Your task to perform on an android device: open sync settings in chrome Image 0: 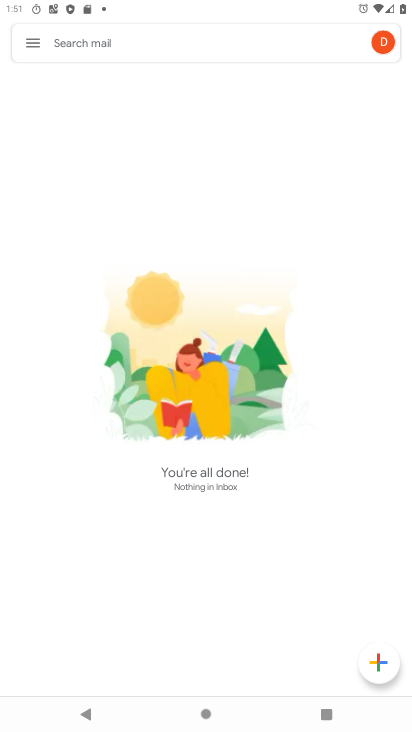
Step 0: press home button
Your task to perform on an android device: open sync settings in chrome Image 1: 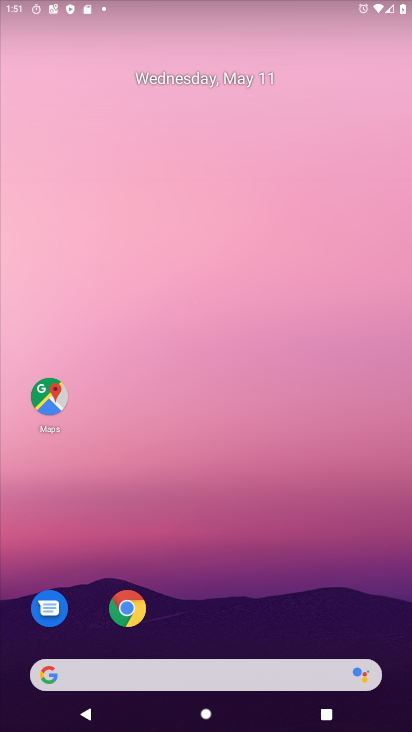
Step 1: drag from (192, 605) to (166, 129)
Your task to perform on an android device: open sync settings in chrome Image 2: 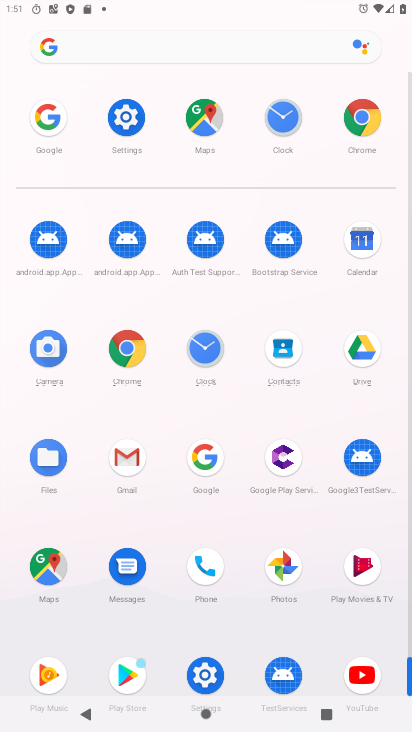
Step 2: click (357, 133)
Your task to perform on an android device: open sync settings in chrome Image 3: 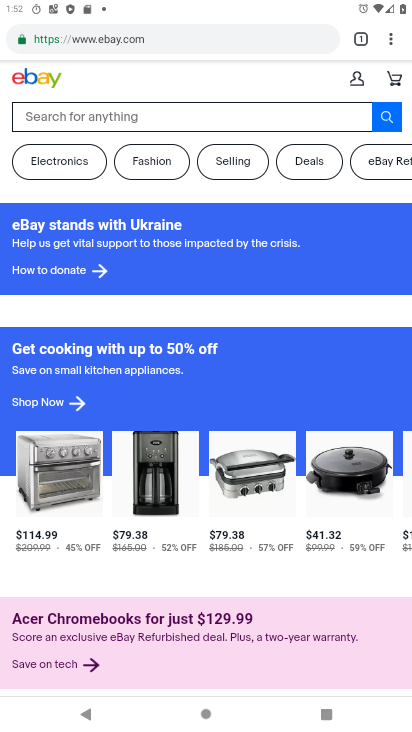
Step 3: click (390, 45)
Your task to perform on an android device: open sync settings in chrome Image 4: 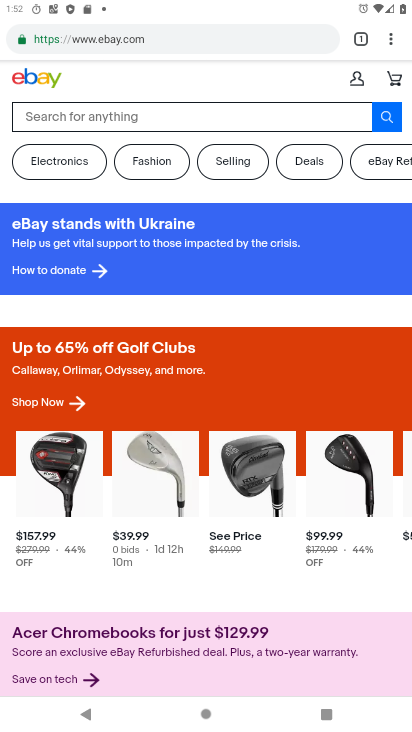
Step 4: click (391, 45)
Your task to perform on an android device: open sync settings in chrome Image 5: 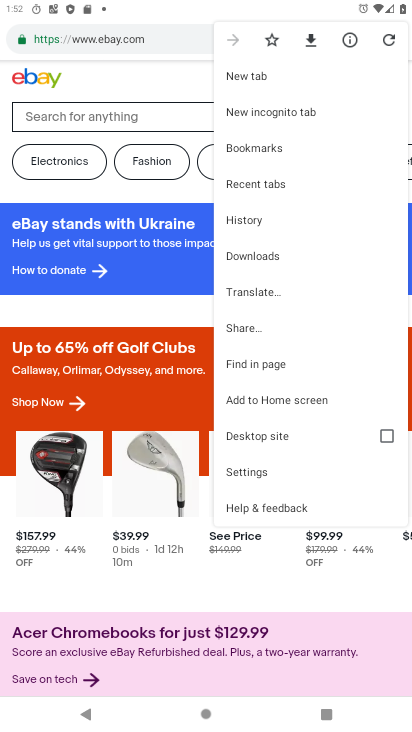
Step 5: click (257, 477)
Your task to perform on an android device: open sync settings in chrome Image 6: 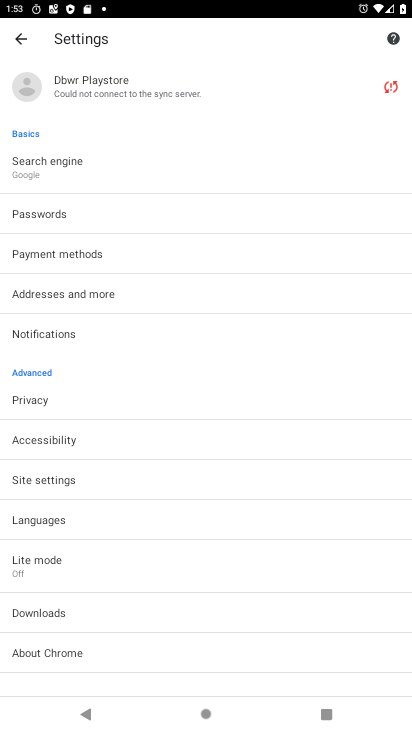
Step 6: click (122, 95)
Your task to perform on an android device: open sync settings in chrome Image 7: 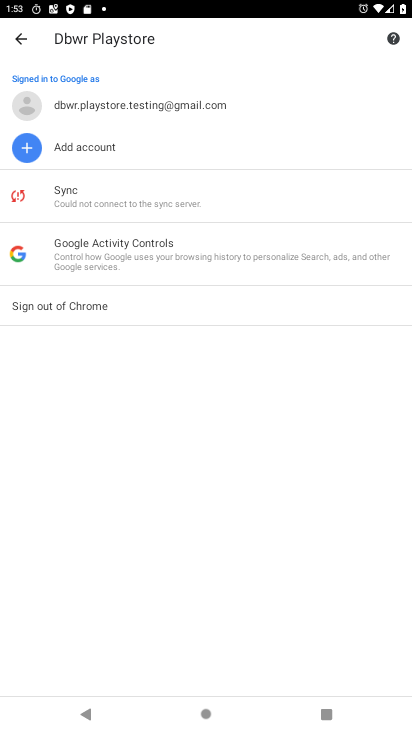
Step 7: click (128, 202)
Your task to perform on an android device: open sync settings in chrome Image 8: 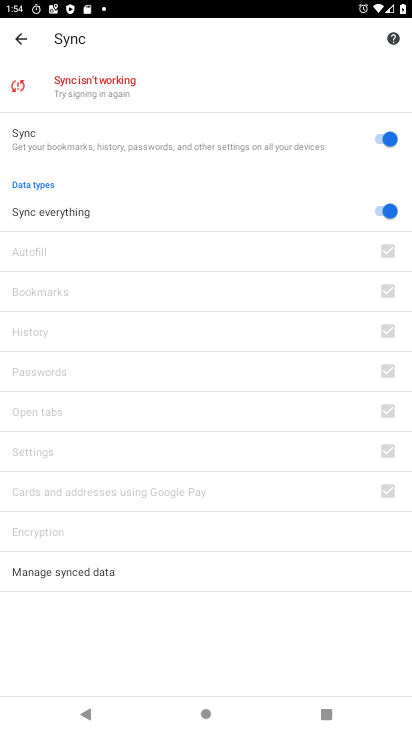
Step 8: task complete